Your task to perform on an android device: find photos in the google photos app Image 0: 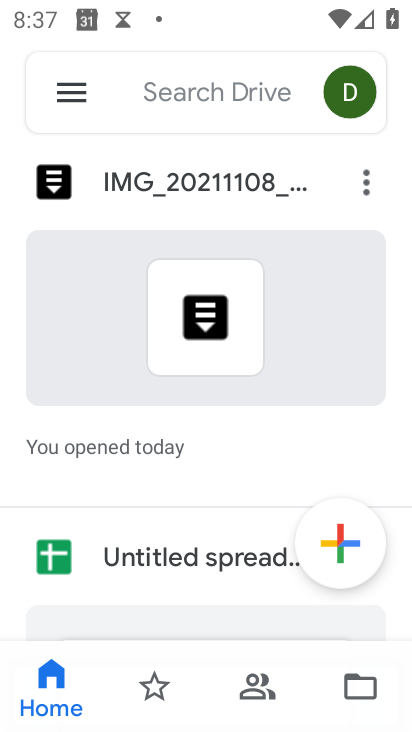
Step 0: press home button
Your task to perform on an android device: find photos in the google photos app Image 1: 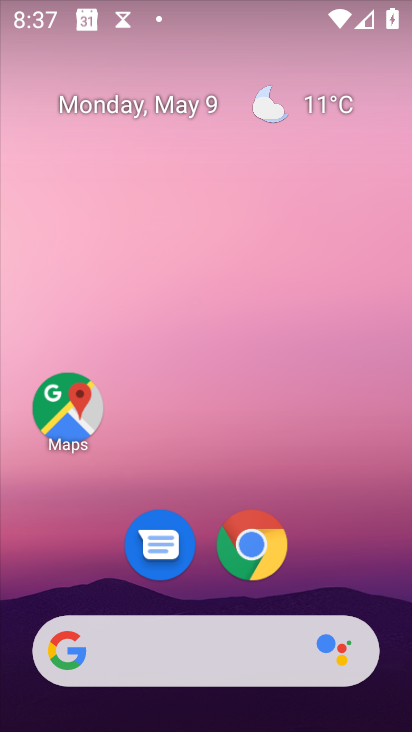
Step 1: drag from (220, 709) to (225, 280)
Your task to perform on an android device: find photos in the google photos app Image 2: 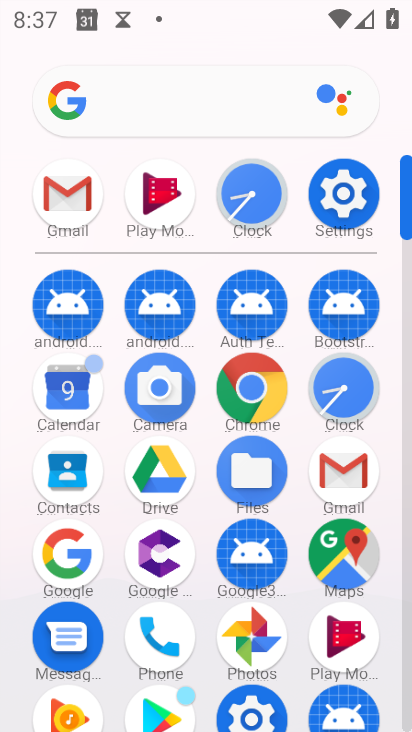
Step 2: click (250, 621)
Your task to perform on an android device: find photos in the google photos app Image 3: 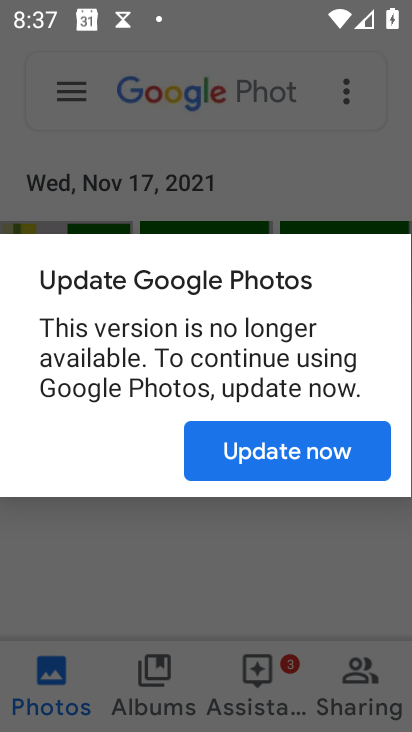
Step 3: task complete